Your task to perform on an android device: Open calendar and show me the second week of next month Image 0: 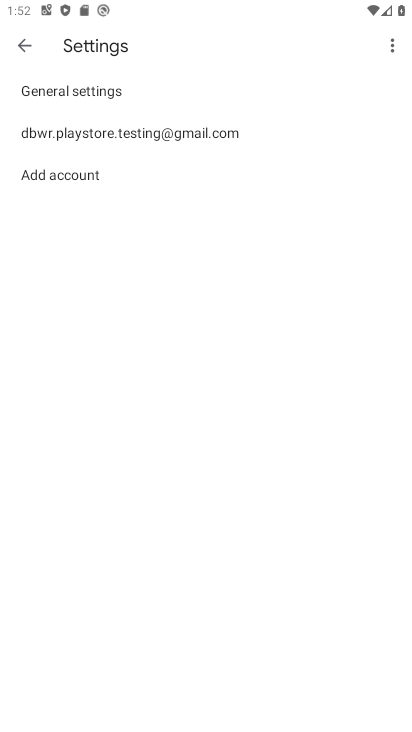
Step 0: press home button
Your task to perform on an android device: Open calendar and show me the second week of next month Image 1: 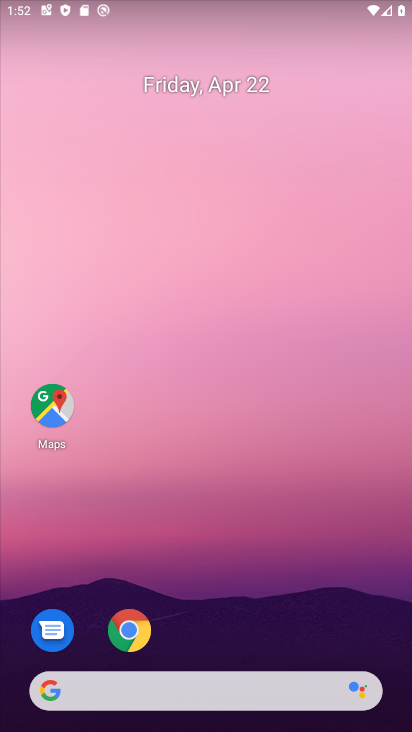
Step 1: drag from (342, 619) to (355, 188)
Your task to perform on an android device: Open calendar and show me the second week of next month Image 2: 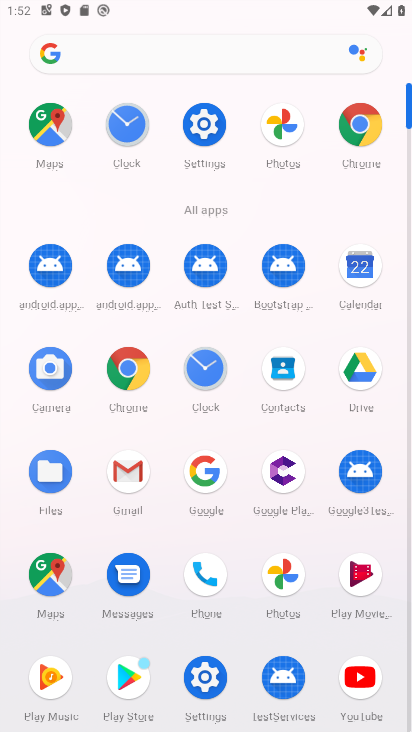
Step 2: click (366, 264)
Your task to perform on an android device: Open calendar and show me the second week of next month Image 3: 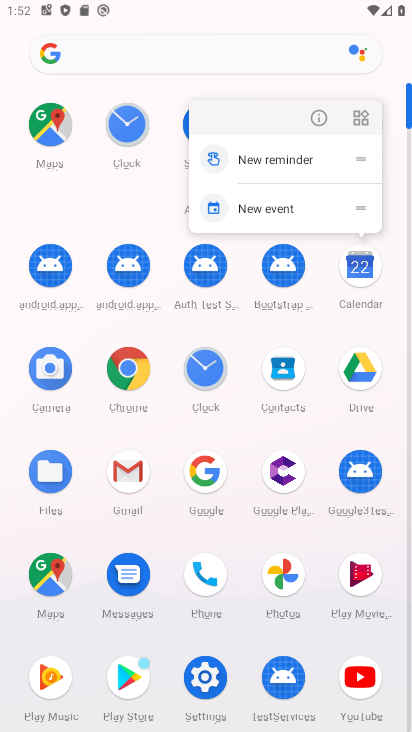
Step 3: click (363, 268)
Your task to perform on an android device: Open calendar and show me the second week of next month Image 4: 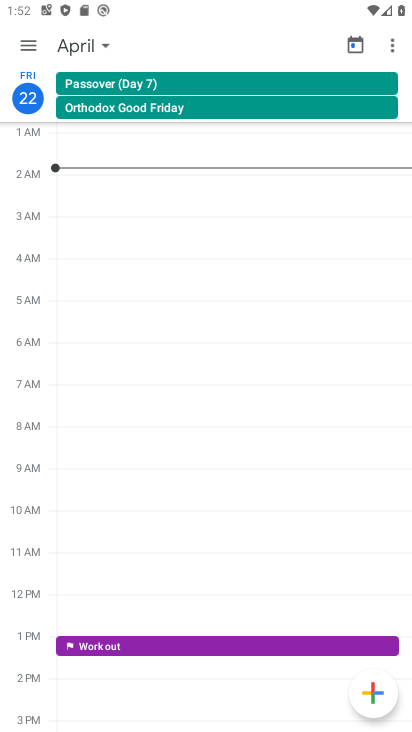
Step 4: click (77, 44)
Your task to perform on an android device: Open calendar and show me the second week of next month Image 5: 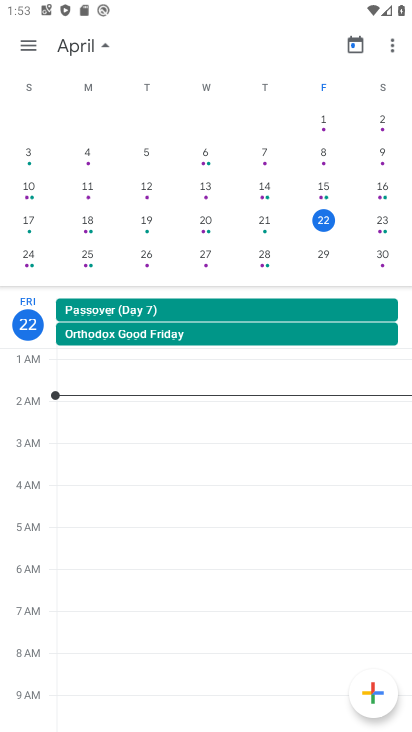
Step 5: drag from (288, 125) to (20, 118)
Your task to perform on an android device: Open calendar and show me the second week of next month Image 6: 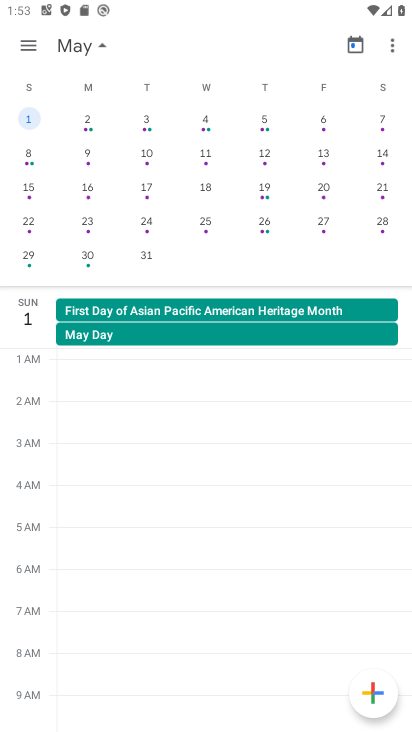
Step 6: click (30, 156)
Your task to perform on an android device: Open calendar and show me the second week of next month Image 7: 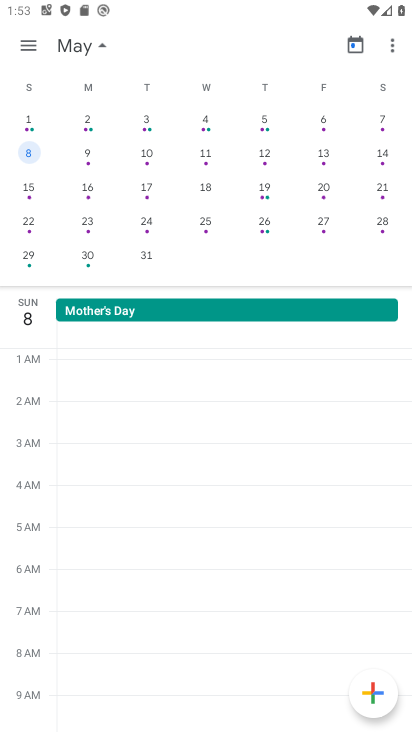
Step 7: task complete